Your task to perform on an android device: Show me popular games on the Play Store Image 0: 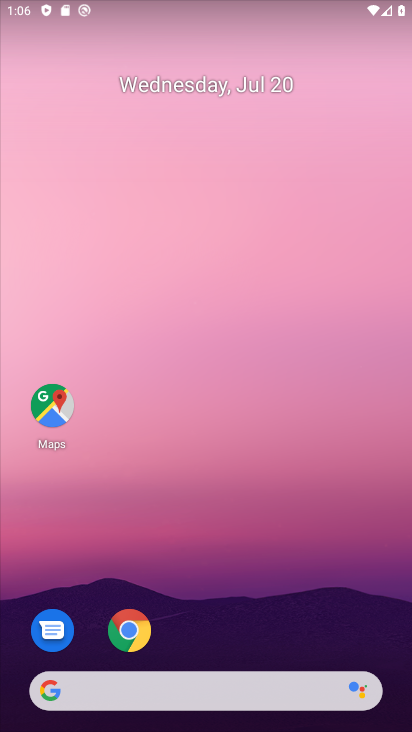
Step 0: drag from (274, 478) to (254, 74)
Your task to perform on an android device: Show me popular games on the Play Store Image 1: 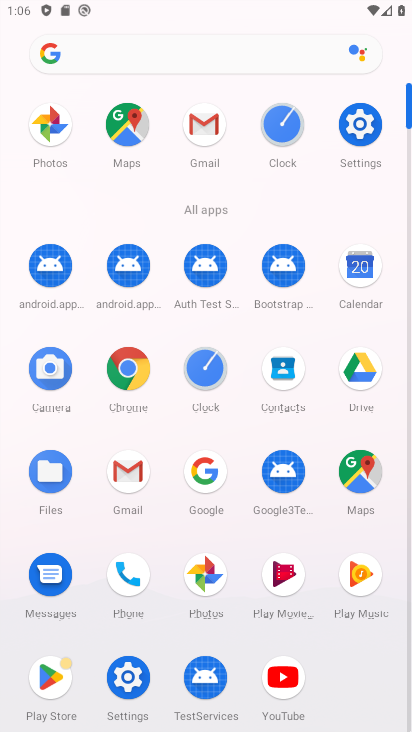
Step 1: click (53, 661)
Your task to perform on an android device: Show me popular games on the Play Store Image 2: 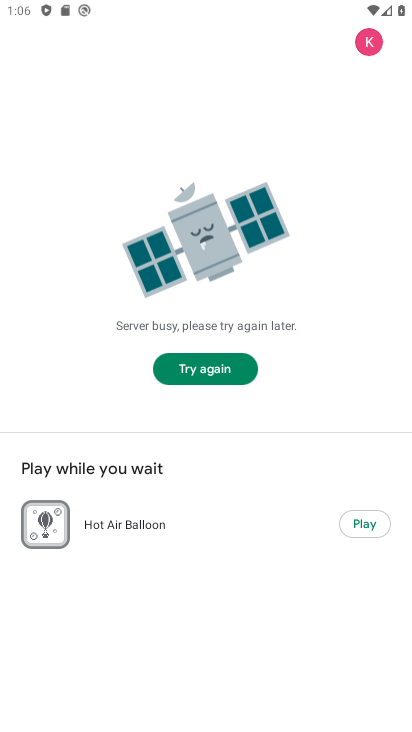
Step 2: task complete